Your task to perform on an android device: add a contact Image 0: 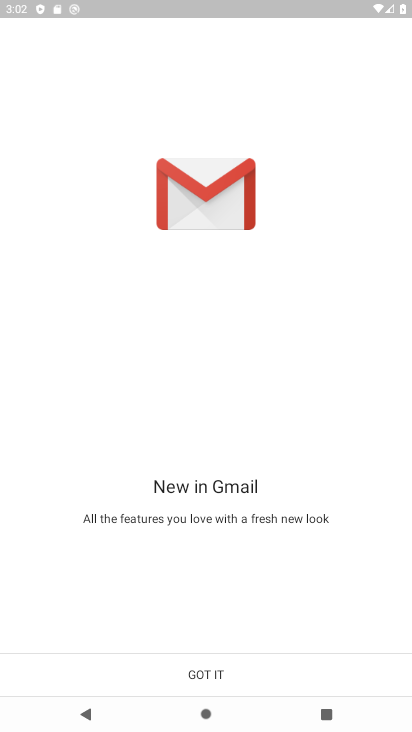
Step 0: press home button
Your task to perform on an android device: add a contact Image 1: 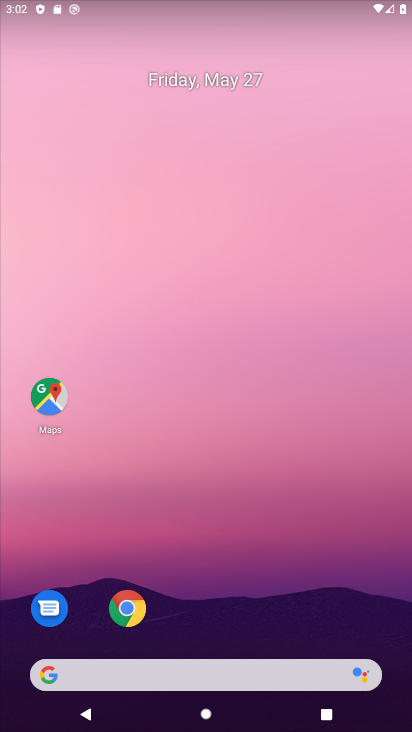
Step 1: drag from (189, 668) to (294, 210)
Your task to perform on an android device: add a contact Image 2: 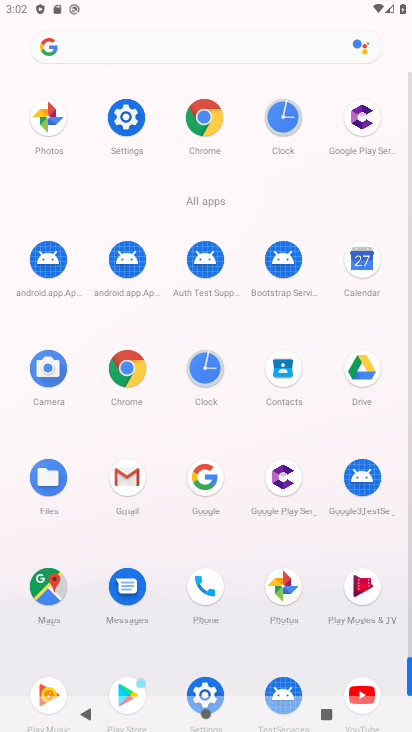
Step 2: click (282, 378)
Your task to perform on an android device: add a contact Image 3: 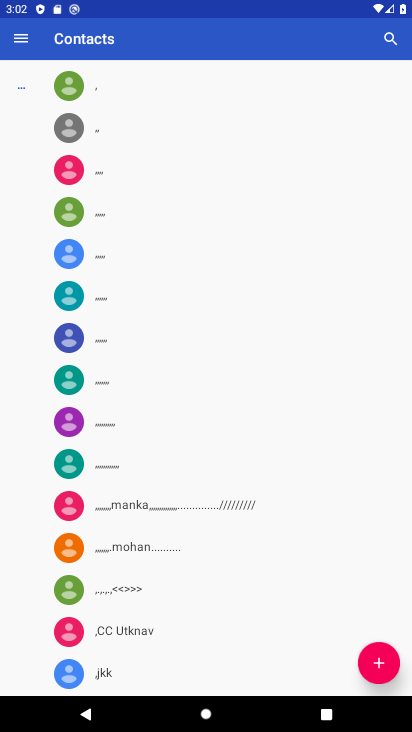
Step 3: click (379, 658)
Your task to perform on an android device: add a contact Image 4: 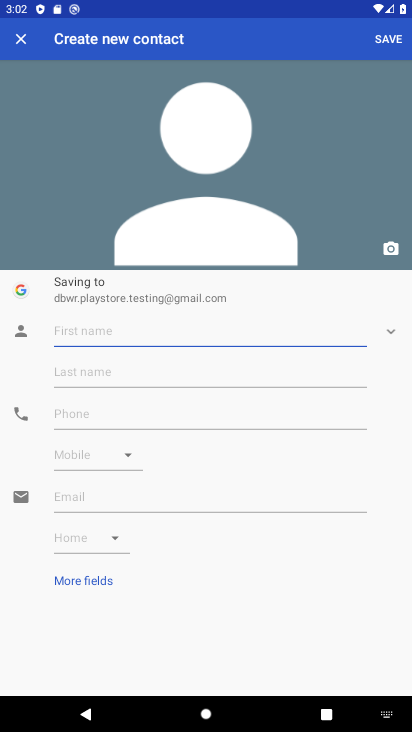
Step 4: click (95, 324)
Your task to perform on an android device: add a contact Image 5: 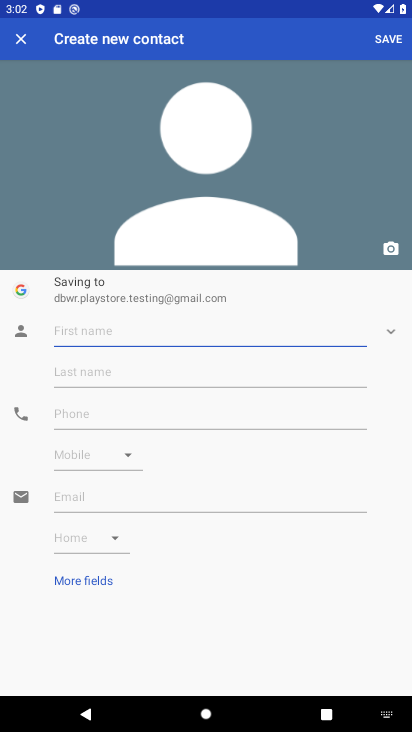
Step 5: type "ccvc"
Your task to perform on an android device: add a contact Image 6: 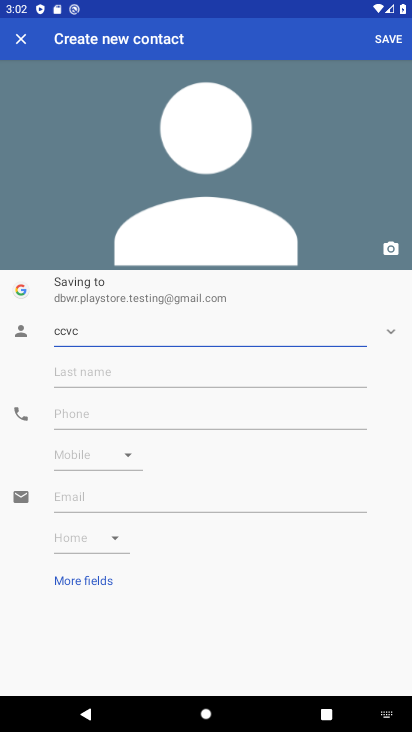
Step 6: click (85, 410)
Your task to perform on an android device: add a contact Image 7: 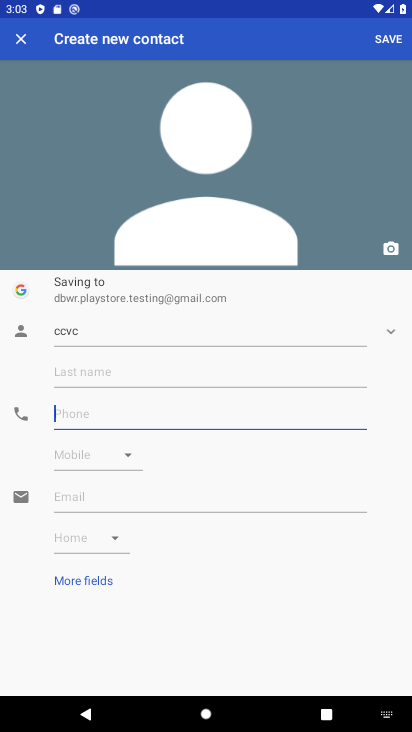
Step 7: type "233233211"
Your task to perform on an android device: add a contact Image 8: 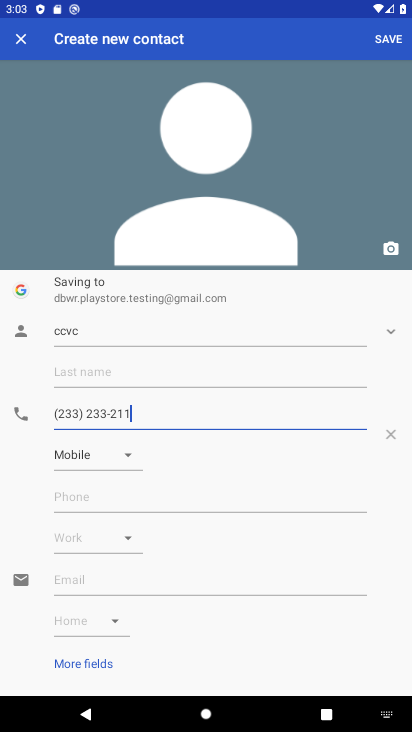
Step 8: click (381, 50)
Your task to perform on an android device: add a contact Image 9: 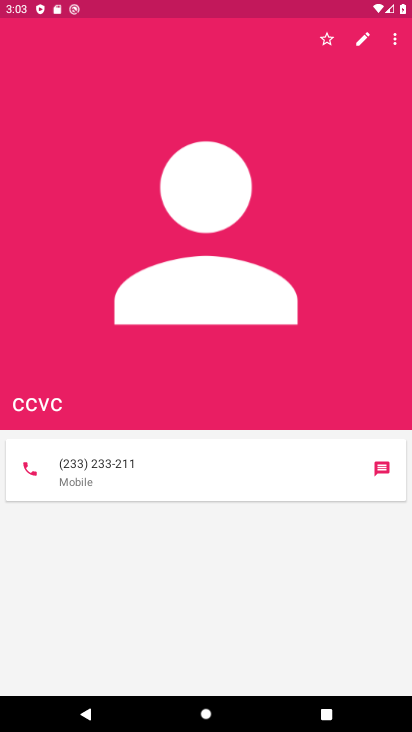
Step 9: task complete